Your task to perform on an android device: clear history in the chrome app Image 0: 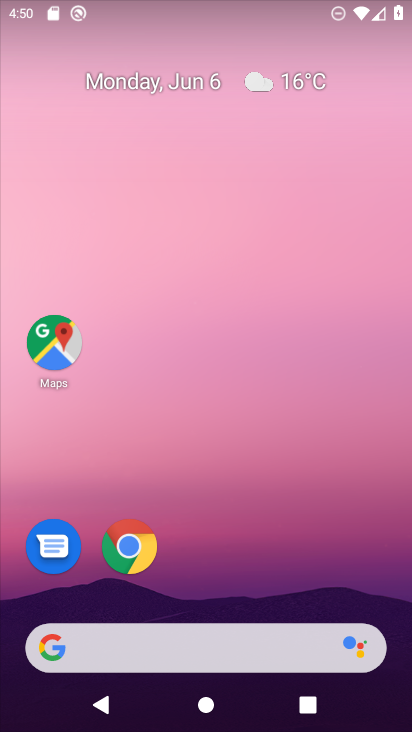
Step 0: drag from (222, 628) to (142, 51)
Your task to perform on an android device: clear history in the chrome app Image 1: 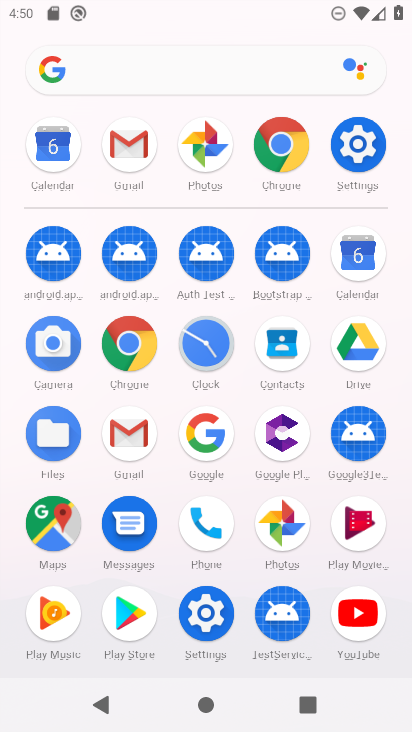
Step 1: click (285, 147)
Your task to perform on an android device: clear history in the chrome app Image 2: 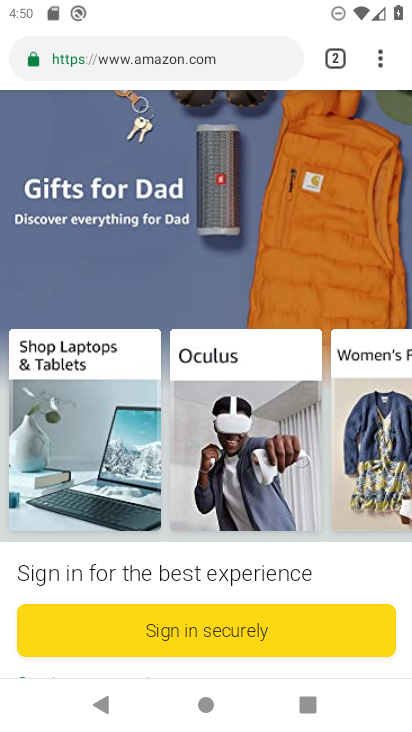
Step 2: task complete